Your task to perform on an android device: Open battery settings Image 0: 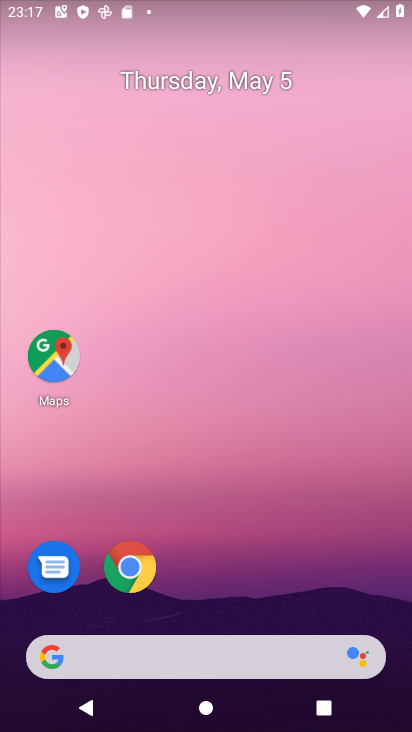
Step 0: drag from (250, 552) to (228, 281)
Your task to perform on an android device: Open battery settings Image 1: 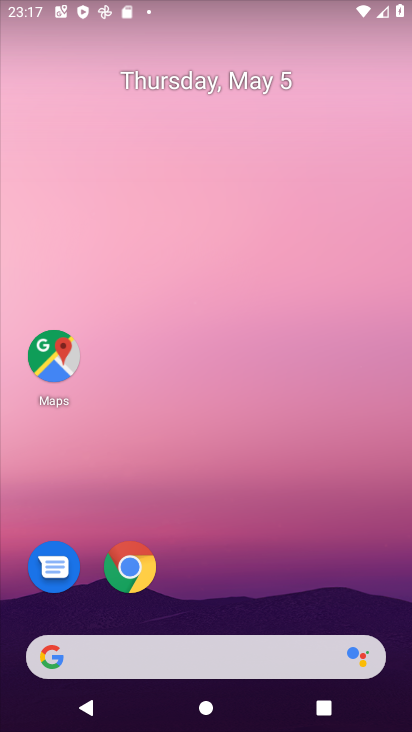
Step 1: drag from (211, 619) to (231, 7)
Your task to perform on an android device: Open battery settings Image 2: 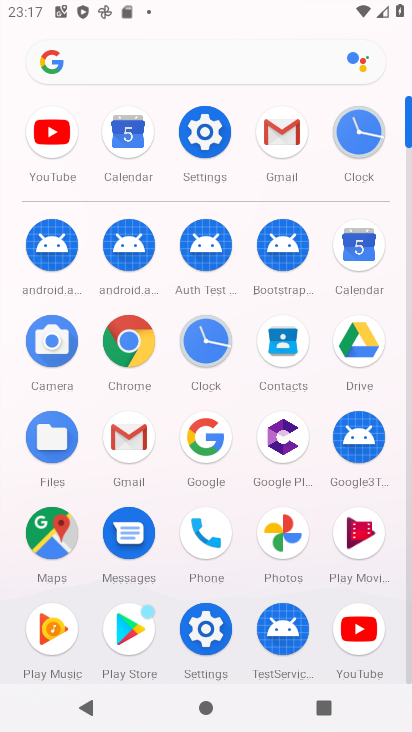
Step 2: click (206, 133)
Your task to perform on an android device: Open battery settings Image 3: 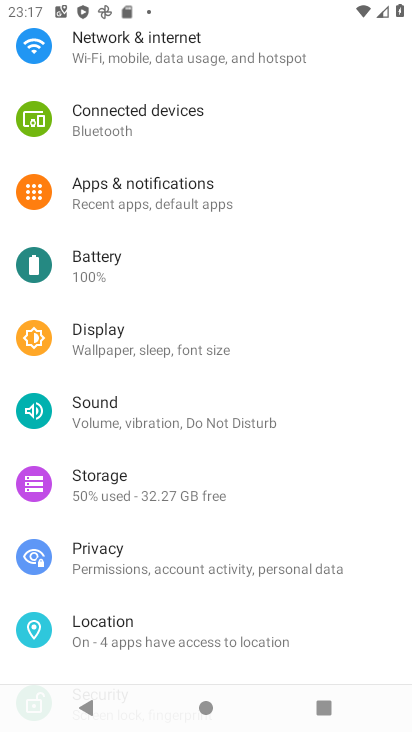
Step 3: click (166, 263)
Your task to perform on an android device: Open battery settings Image 4: 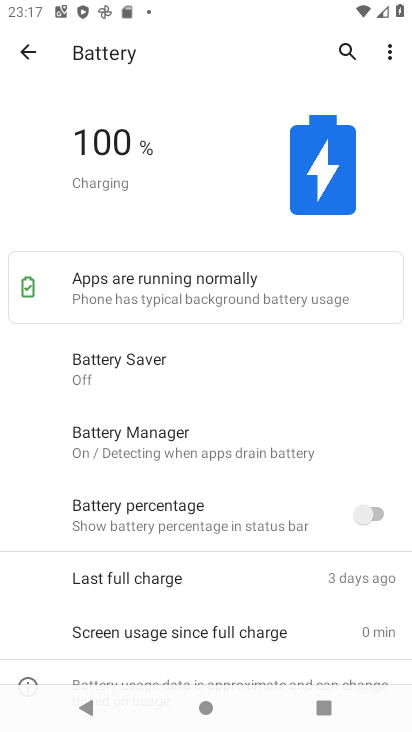
Step 4: task complete